Your task to perform on an android device: Go to sound settings Image 0: 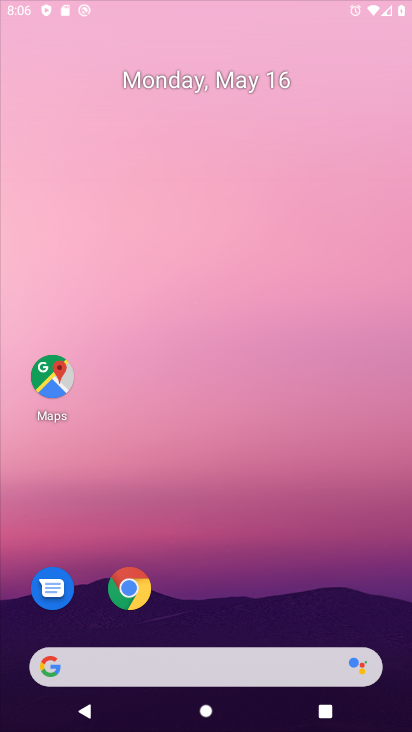
Step 0: click (100, 109)
Your task to perform on an android device: Go to sound settings Image 1: 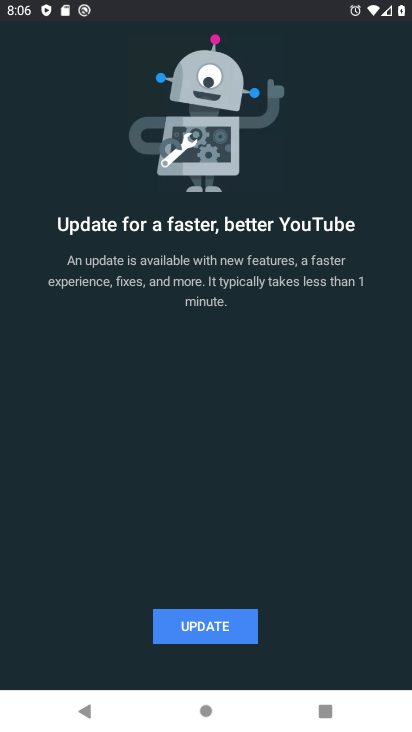
Step 1: press home button
Your task to perform on an android device: Go to sound settings Image 2: 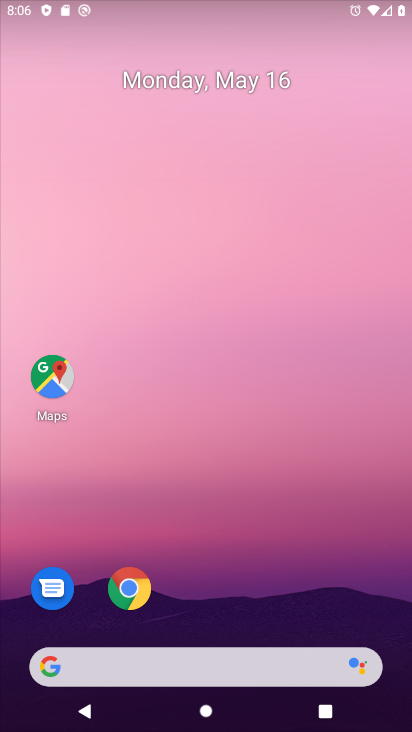
Step 2: drag from (302, 655) to (167, 184)
Your task to perform on an android device: Go to sound settings Image 3: 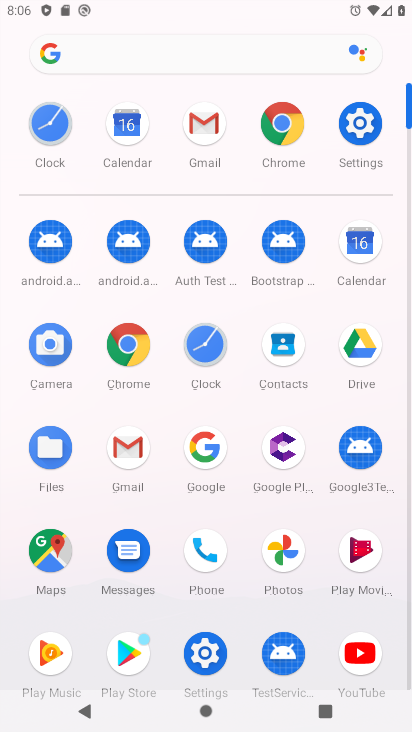
Step 3: click (365, 113)
Your task to perform on an android device: Go to sound settings Image 4: 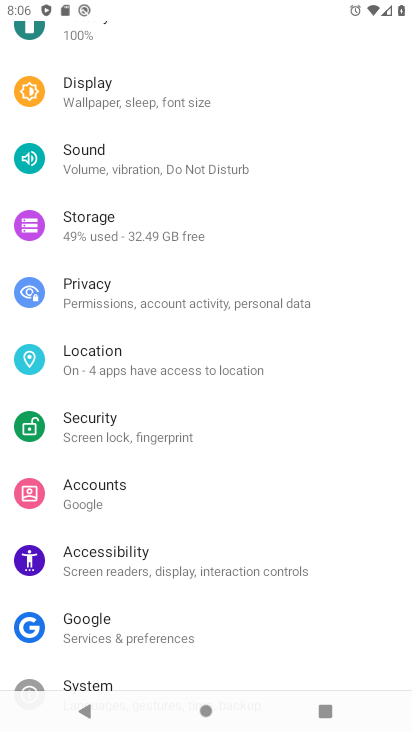
Step 4: click (100, 160)
Your task to perform on an android device: Go to sound settings Image 5: 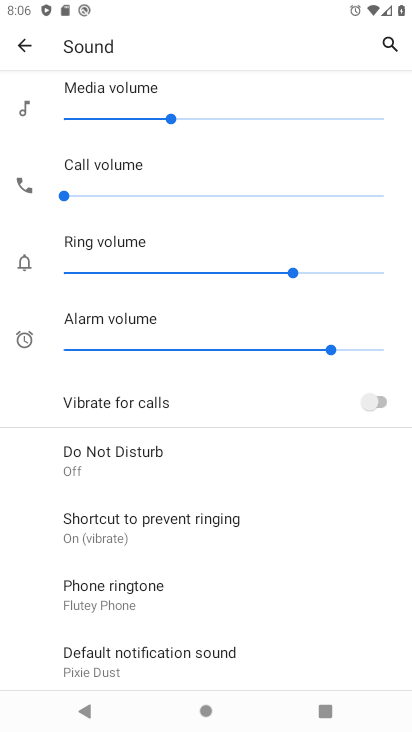
Step 5: task complete